Your task to perform on an android device: Search for sushi restaurants on Maps Image 0: 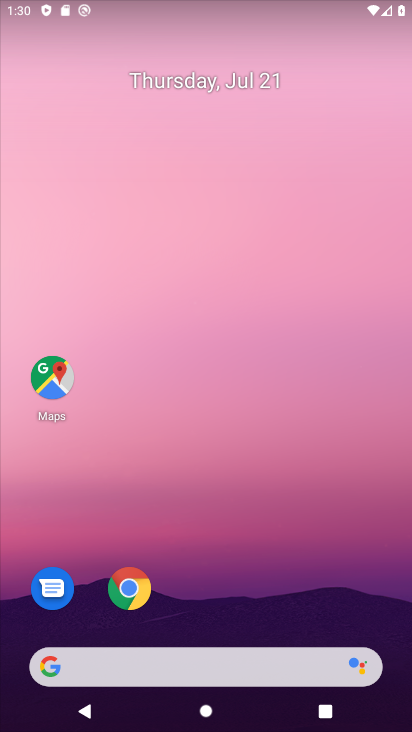
Step 0: drag from (217, 632) to (163, 29)
Your task to perform on an android device: Search for sushi restaurants on Maps Image 1: 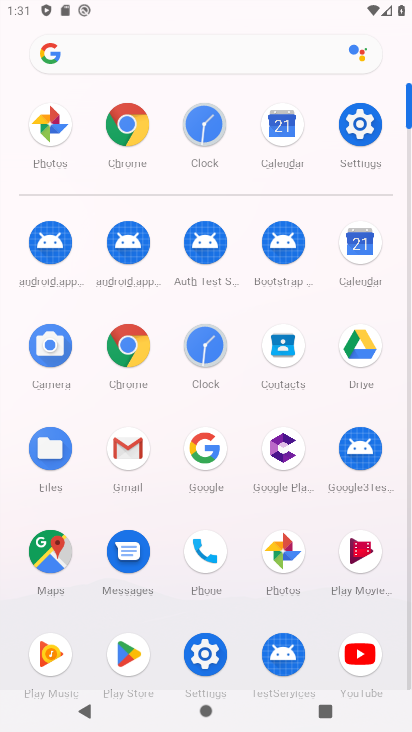
Step 1: click (52, 557)
Your task to perform on an android device: Search for sushi restaurants on Maps Image 2: 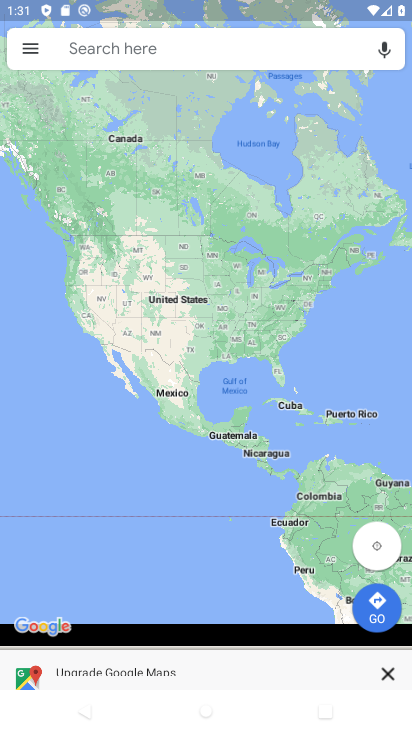
Step 2: click (159, 55)
Your task to perform on an android device: Search for sushi restaurants on Maps Image 3: 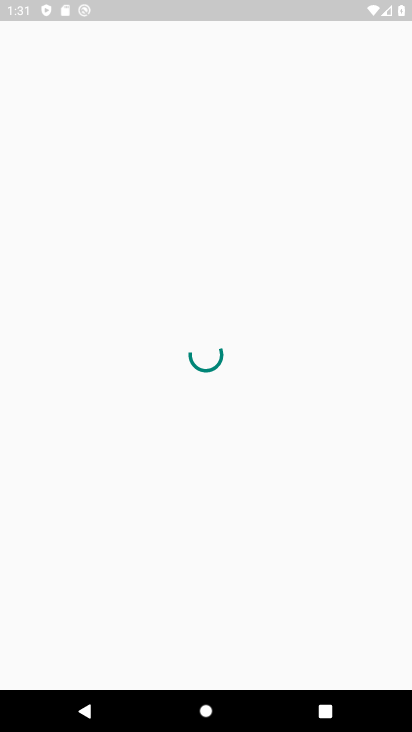
Step 3: click (346, 393)
Your task to perform on an android device: Search for sushi restaurants on Maps Image 4: 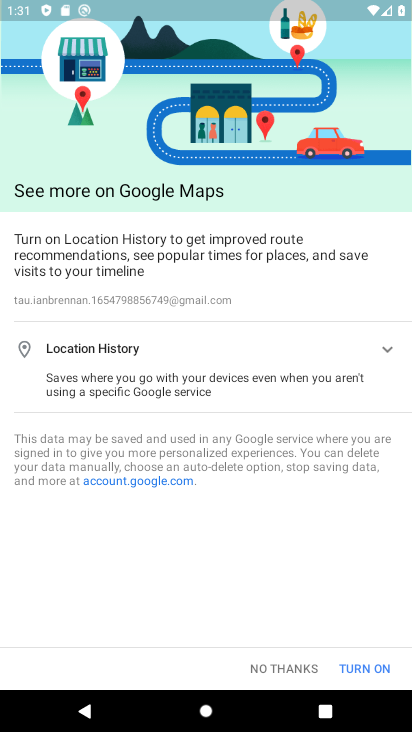
Step 4: click (362, 671)
Your task to perform on an android device: Search for sushi restaurants on Maps Image 5: 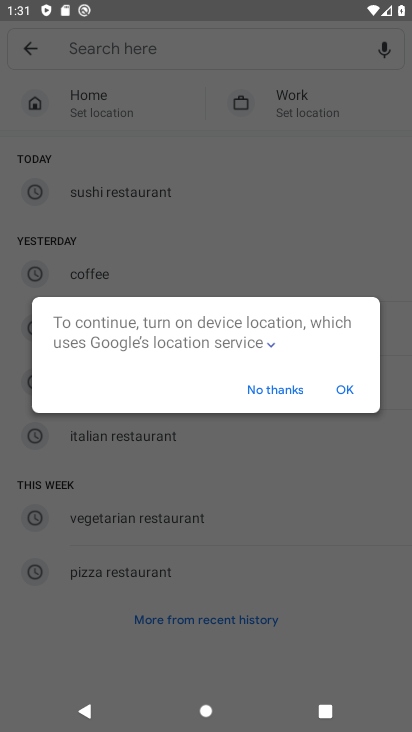
Step 5: click (349, 384)
Your task to perform on an android device: Search for sushi restaurants on Maps Image 6: 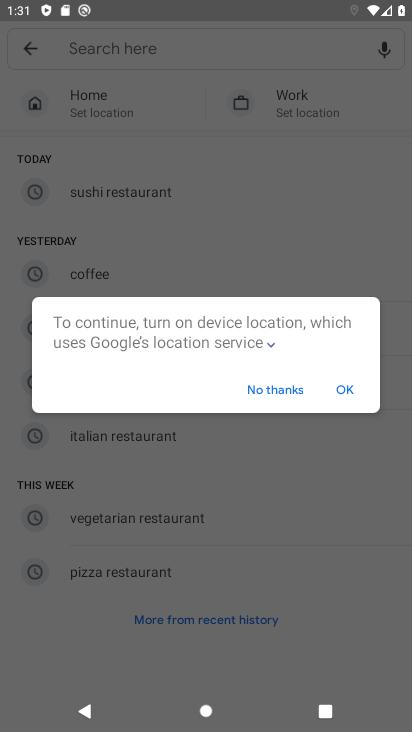
Step 6: click (334, 389)
Your task to perform on an android device: Search for sushi restaurants on Maps Image 7: 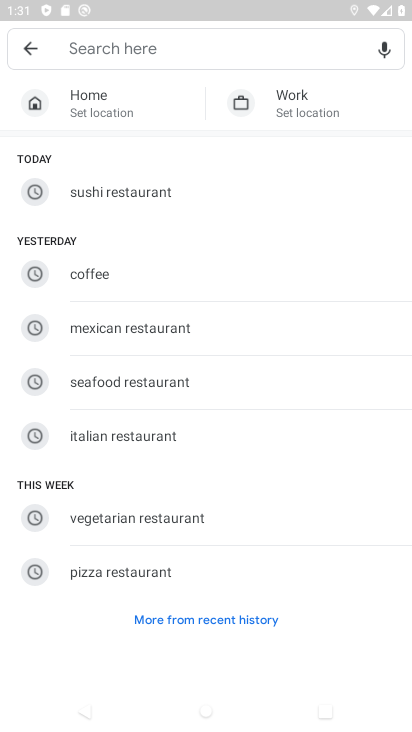
Step 7: drag from (342, 387) to (340, 191)
Your task to perform on an android device: Search for sushi restaurants on Maps Image 8: 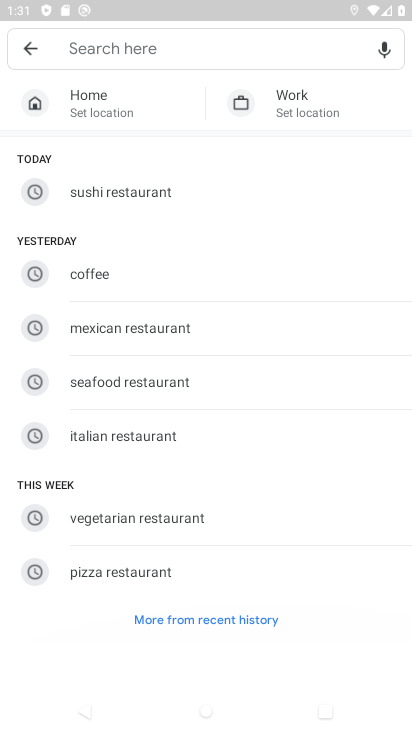
Step 8: click (146, 193)
Your task to perform on an android device: Search for sushi restaurants on Maps Image 9: 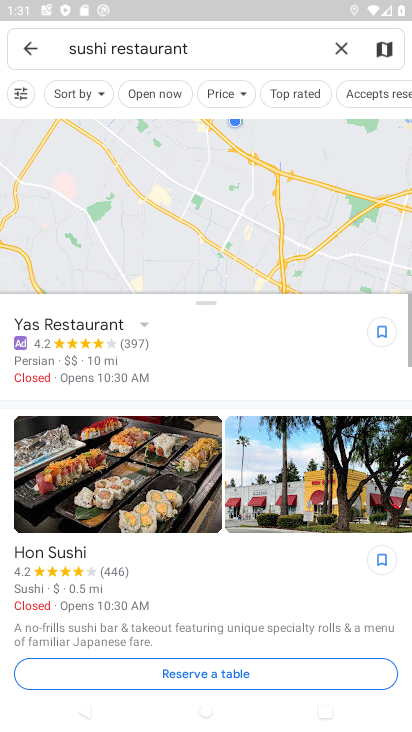
Step 9: task complete